Your task to perform on an android device: Open Google Maps Image 0: 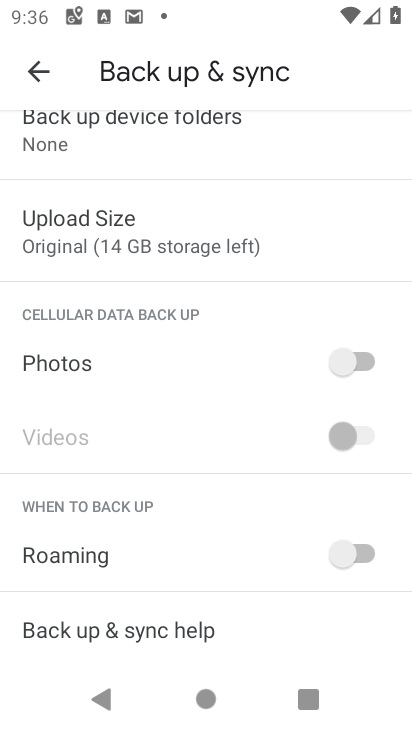
Step 0: press home button
Your task to perform on an android device: Open Google Maps Image 1: 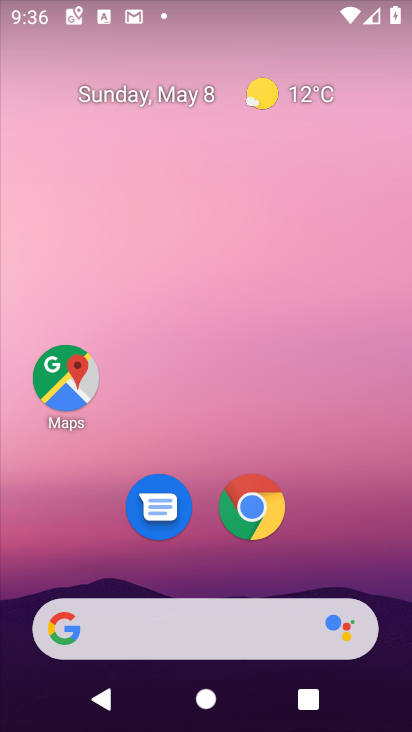
Step 1: click (42, 377)
Your task to perform on an android device: Open Google Maps Image 2: 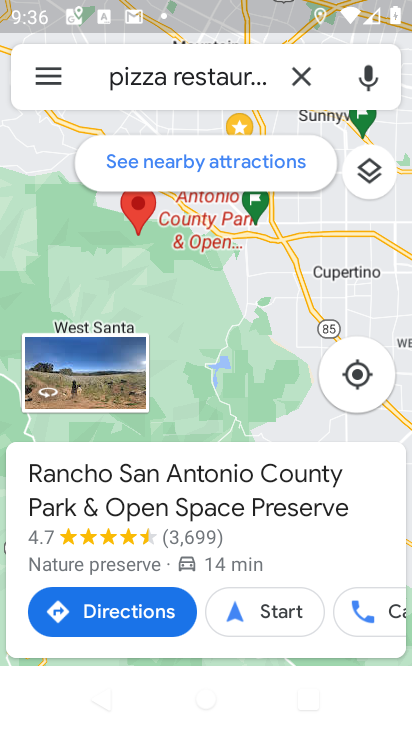
Step 2: task complete